Your task to perform on an android device: turn off airplane mode Image 0: 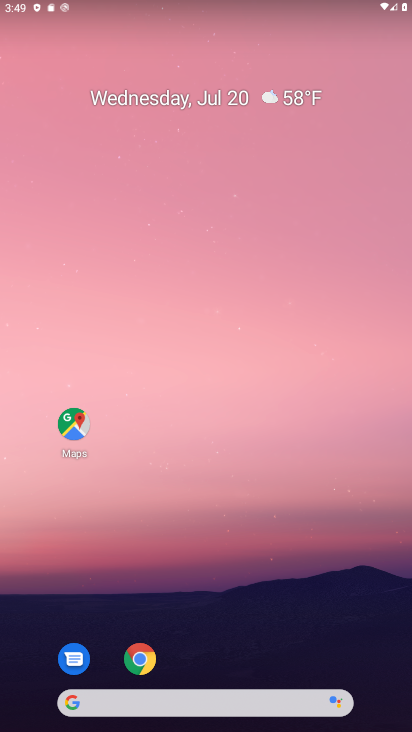
Step 0: drag from (265, 611) to (194, 183)
Your task to perform on an android device: turn off airplane mode Image 1: 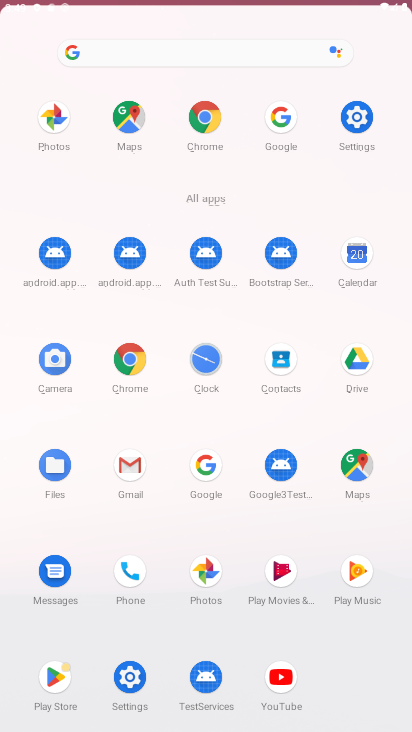
Step 1: drag from (213, 524) to (201, 178)
Your task to perform on an android device: turn off airplane mode Image 2: 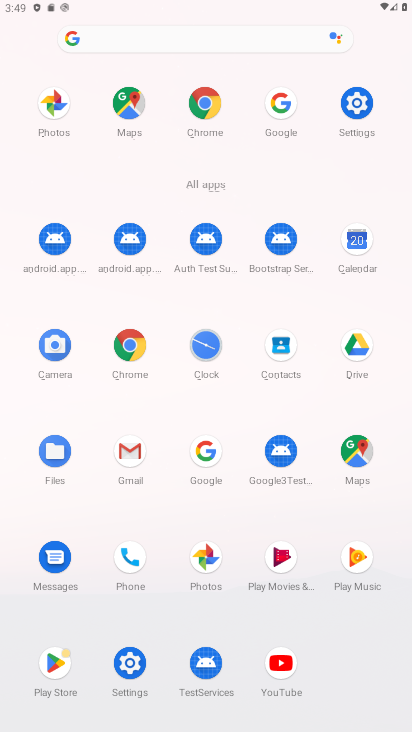
Step 2: click (347, 106)
Your task to perform on an android device: turn off airplane mode Image 3: 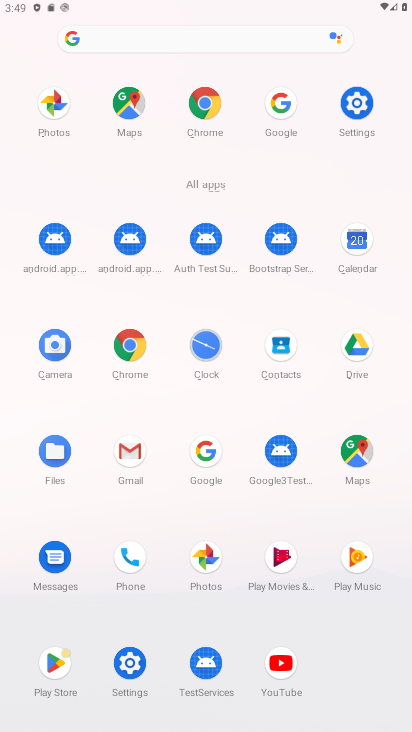
Step 3: click (347, 105)
Your task to perform on an android device: turn off airplane mode Image 4: 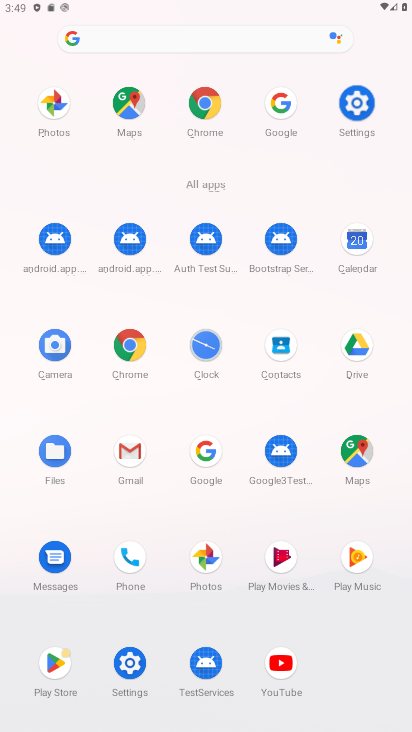
Step 4: click (347, 105)
Your task to perform on an android device: turn off airplane mode Image 5: 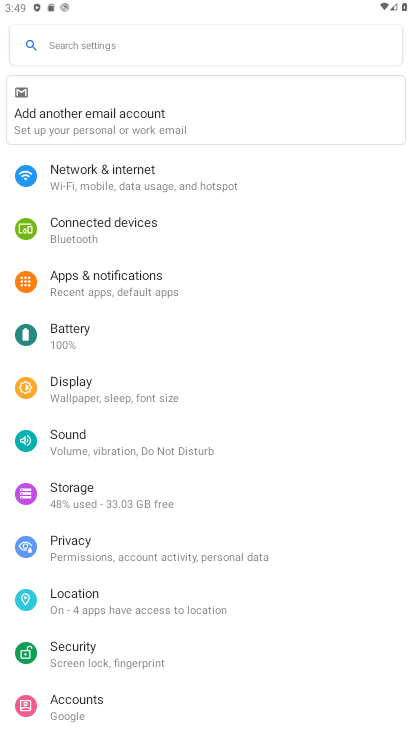
Step 5: click (118, 182)
Your task to perform on an android device: turn off airplane mode Image 6: 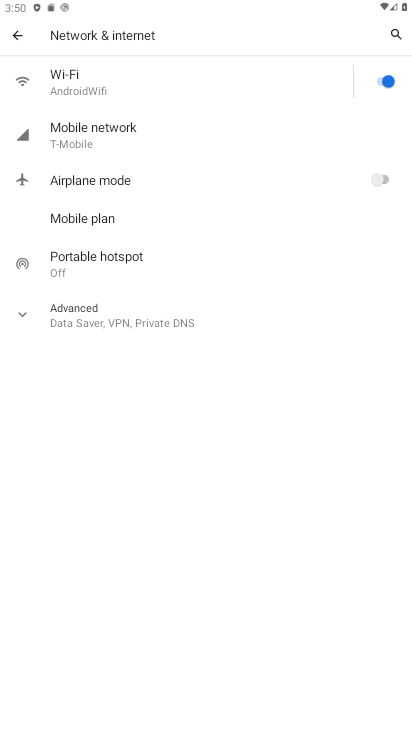
Step 6: task complete